Your task to perform on an android device: find photos in the google photos app Image 0: 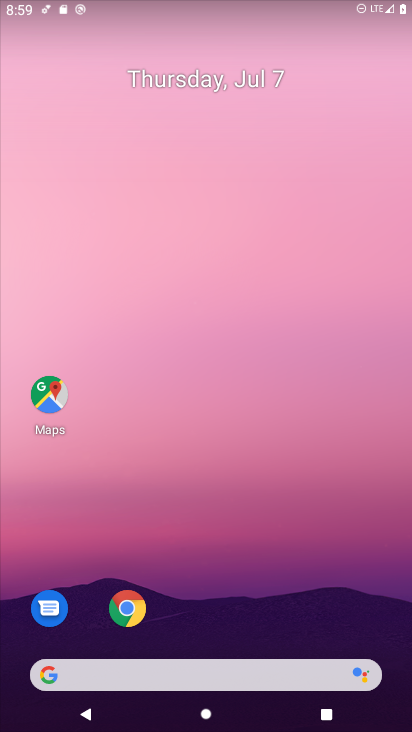
Step 0: drag from (373, 626) to (333, 104)
Your task to perform on an android device: find photos in the google photos app Image 1: 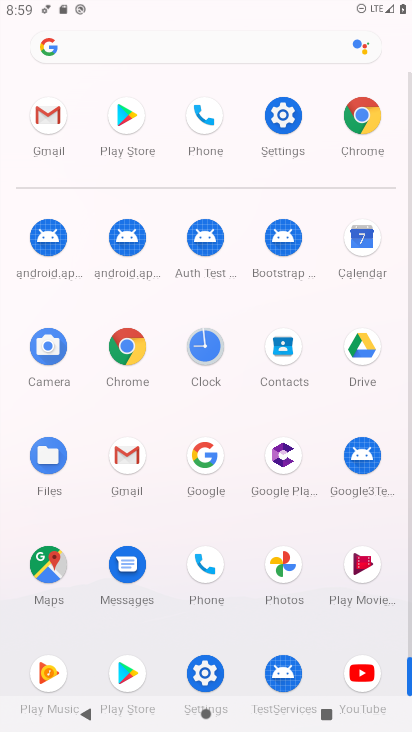
Step 1: click (282, 563)
Your task to perform on an android device: find photos in the google photos app Image 2: 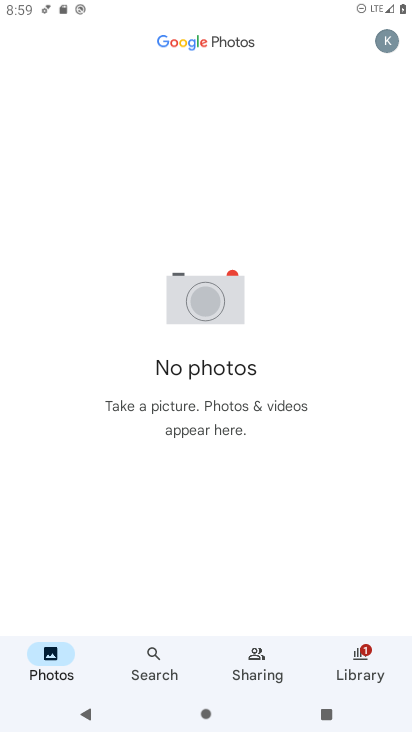
Step 2: task complete